Your task to perform on an android device: turn on sleep mode Image 0: 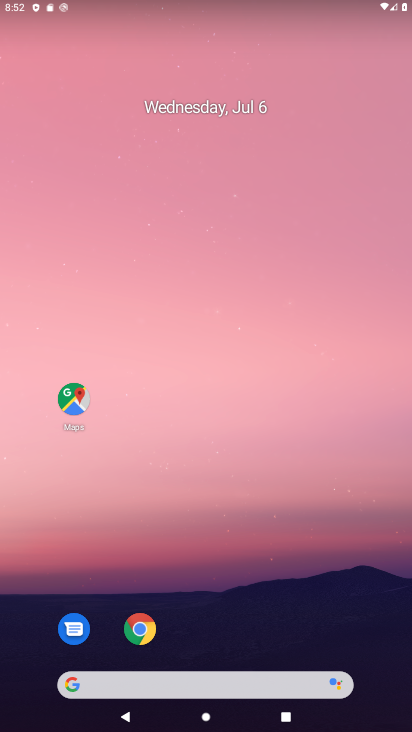
Step 0: drag from (228, 630) to (288, 98)
Your task to perform on an android device: turn on sleep mode Image 1: 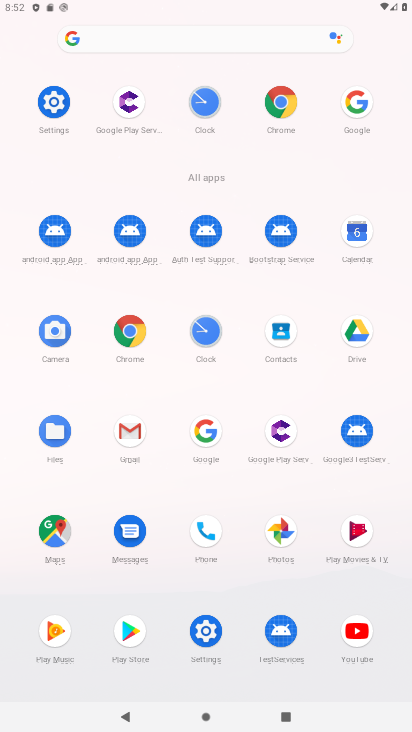
Step 1: click (56, 103)
Your task to perform on an android device: turn on sleep mode Image 2: 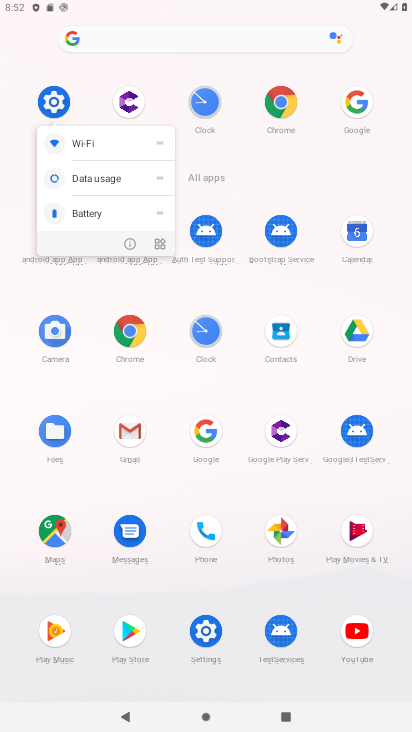
Step 2: click (82, 81)
Your task to perform on an android device: turn on sleep mode Image 3: 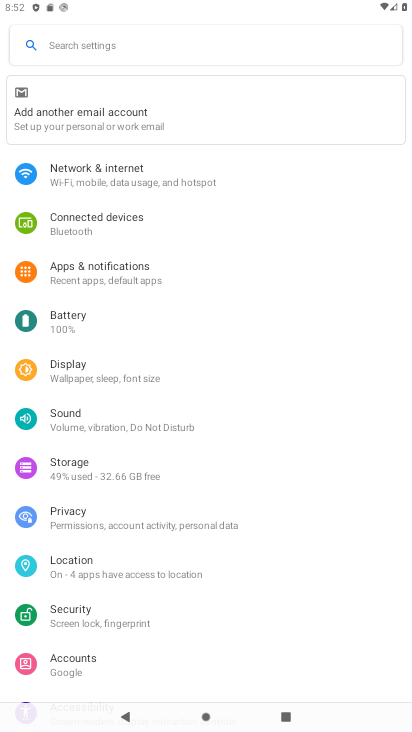
Step 3: click (115, 379)
Your task to perform on an android device: turn on sleep mode Image 4: 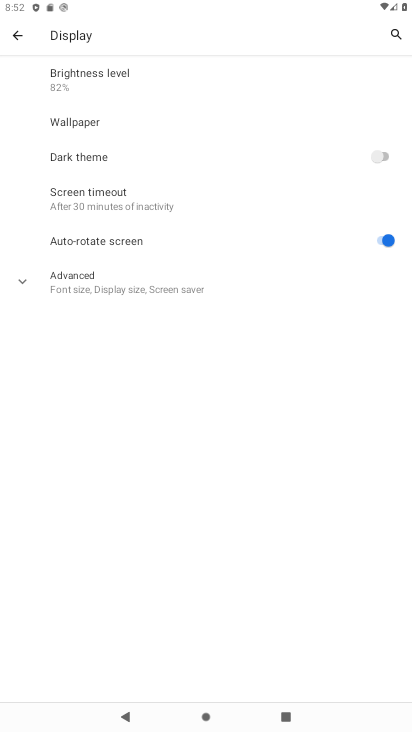
Step 4: click (70, 191)
Your task to perform on an android device: turn on sleep mode Image 5: 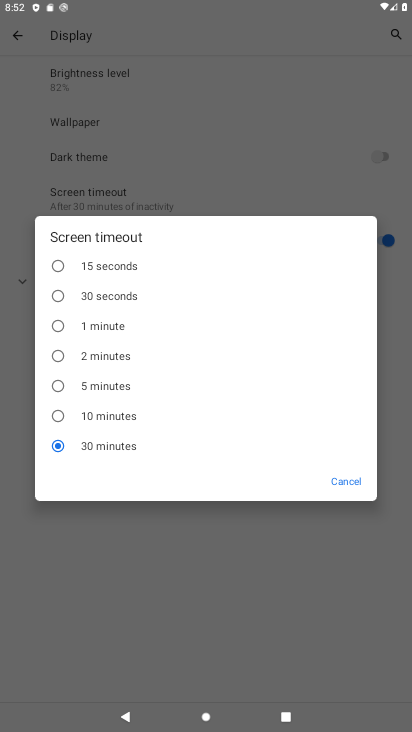
Step 5: task complete